Your task to perform on an android device: Search for seafood restaurants on Google Maps Image 0: 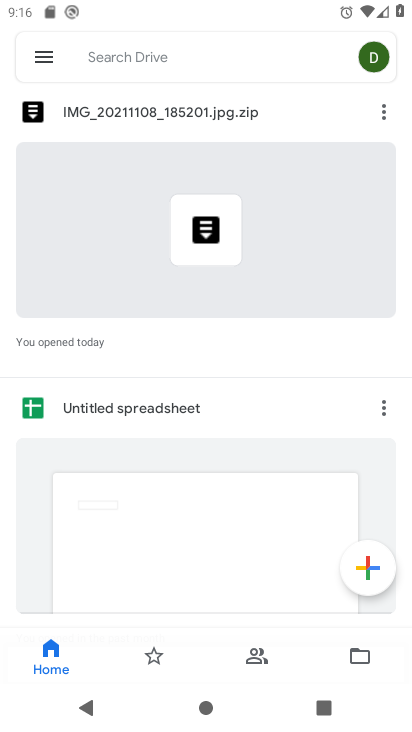
Step 0: press home button
Your task to perform on an android device: Search for seafood restaurants on Google Maps Image 1: 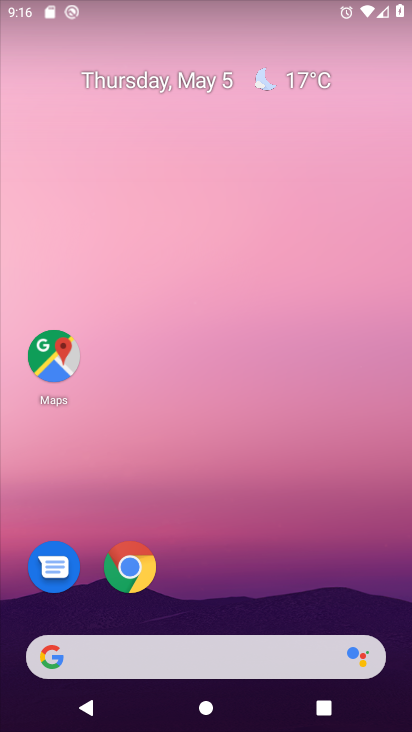
Step 1: drag from (175, 454) to (227, 6)
Your task to perform on an android device: Search for seafood restaurants on Google Maps Image 2: 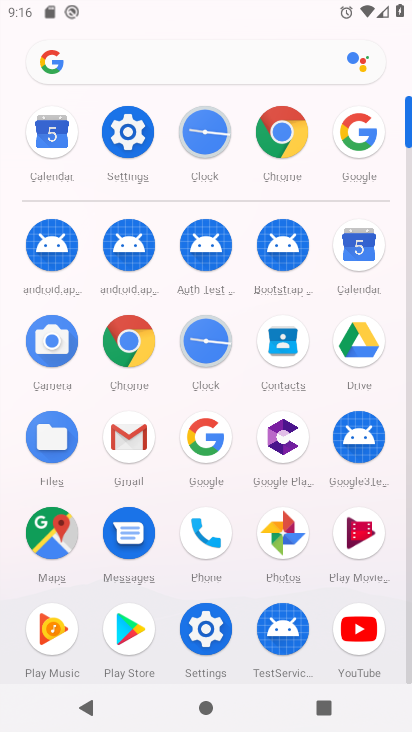
Step 2: click (59, 528)
Your task to perform on an android device: Search for seafood restaurants on Google Maps Image 3: 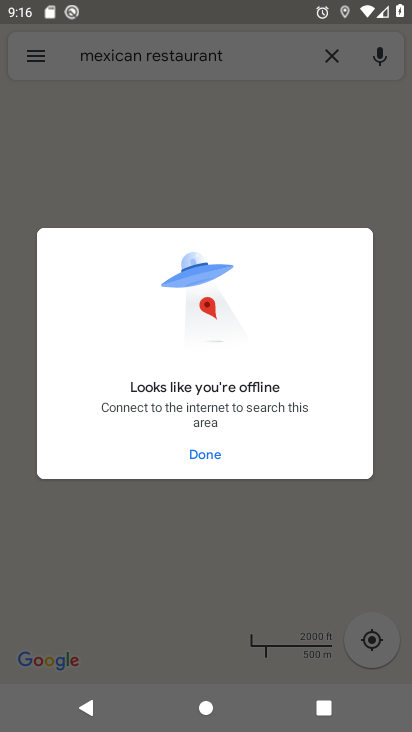
Step 3: click (246, 510)
Your task to perform on an android device: Search for seafood restaurants on Google Maps Image 4: 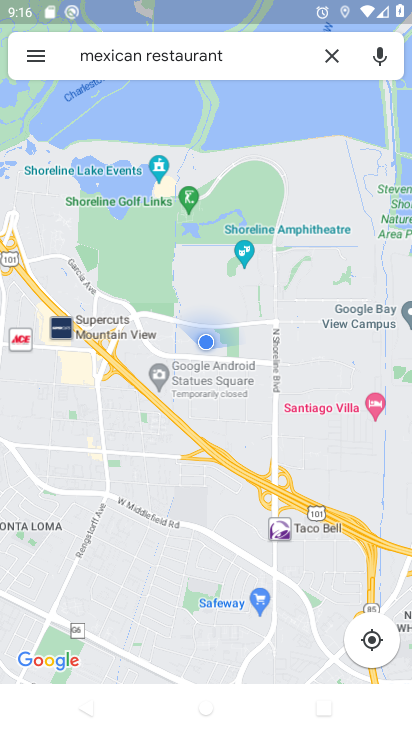
Step 4: click (331, 54)
Your task to perform on an android device: Search for seafood restaurants on Google Maps Image 5: 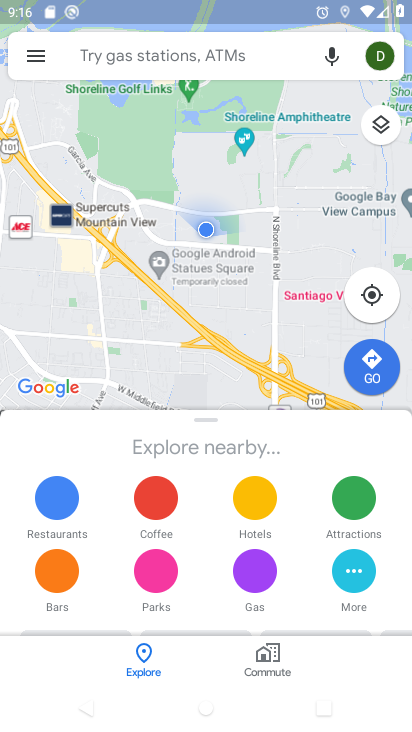
Step 5: click (271, 49)
Your task to perform on an android device: Search for seafood restaurants on Google Maps Image 6: 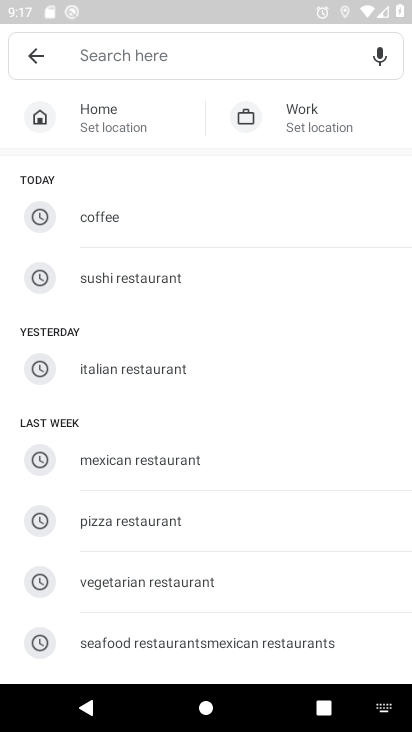
Step 6: type "seafood restaurents"
Your task to perform on an android device: Search for seafood restaurants on Google Maps Image 7: 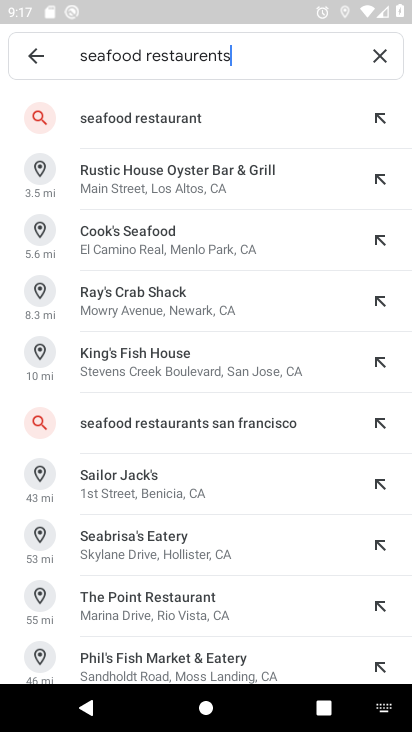
Step 7: click (179, 114)
Your task to perform on an android device: Search for seafood restaurants on Google Maps Image 8: 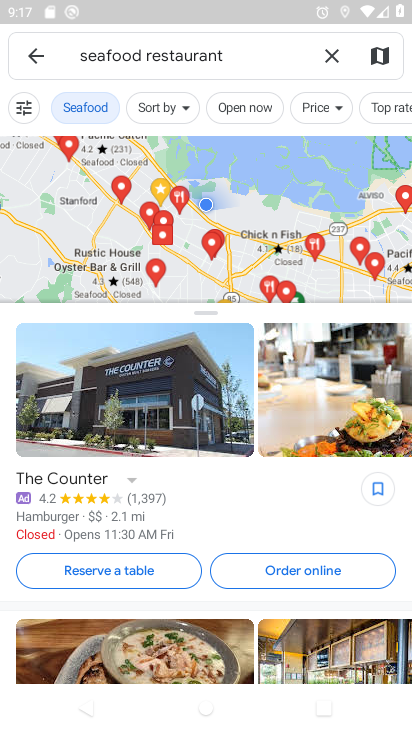
Step 8: task complete